Your task to perform on an android device: allow cookies in the chrome app Image 0: 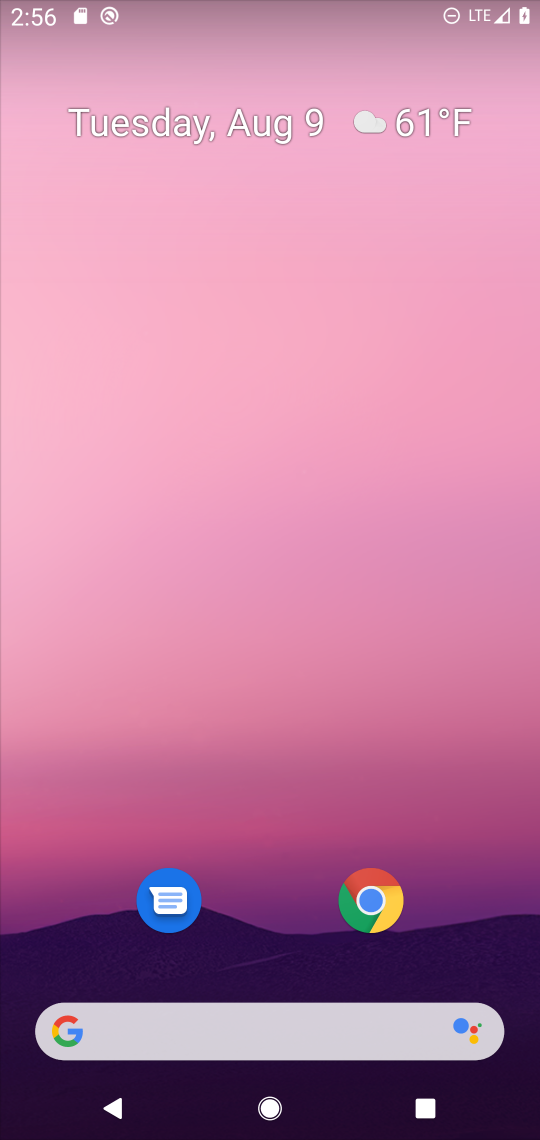
Step 0: press home button
Your task to perform on an android device: allow cookies in the chrome app Image 1: 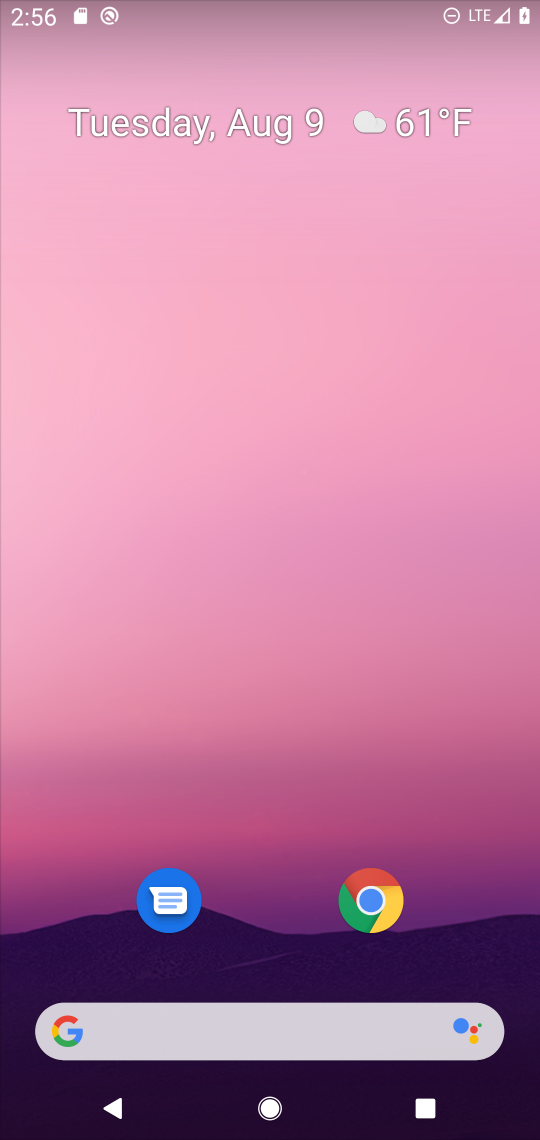
Step 1: drag from (450, 836) to (488, 115)
Your task to perform on an android device: allow cookies in the chrome app Image 2: 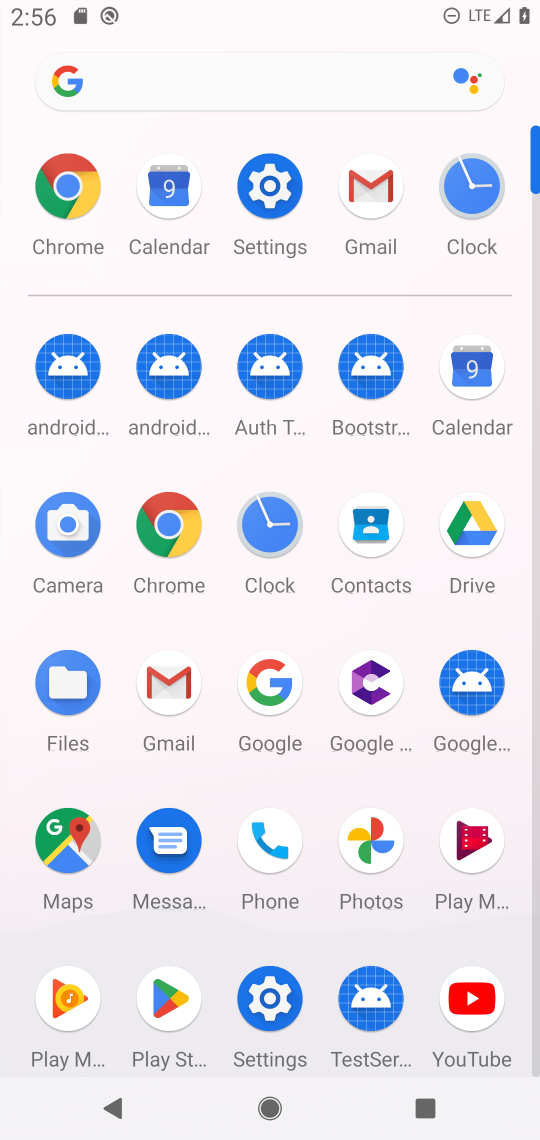
Step 2: click (160, 535)
Your task to perform on an android device: allow cookies in the chrome app Image 3: 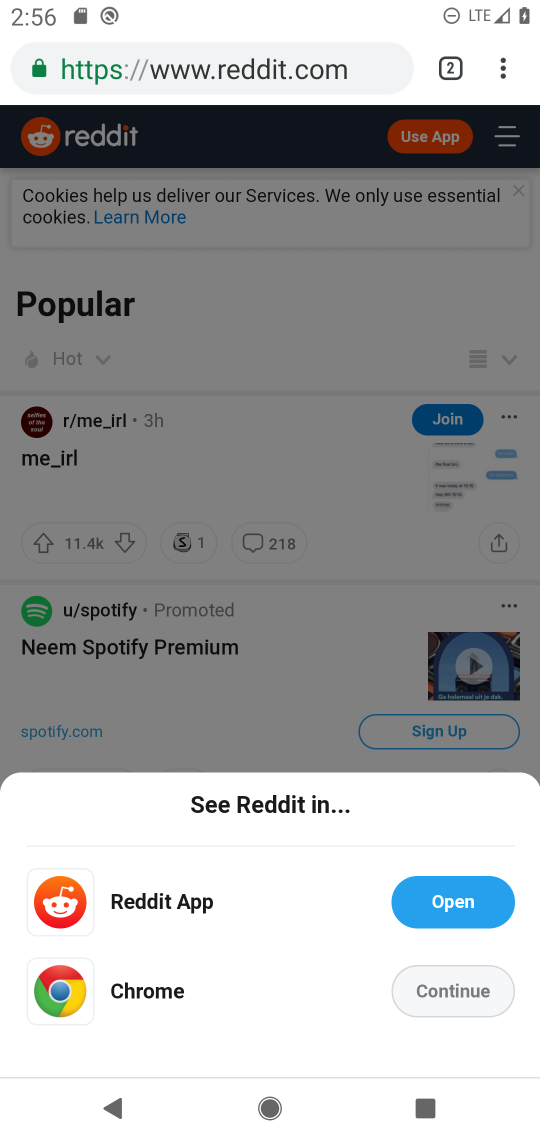
Step 3: click (499, 70)
Your task to perform on an android device: allow cookies in the chrome app Image 4: 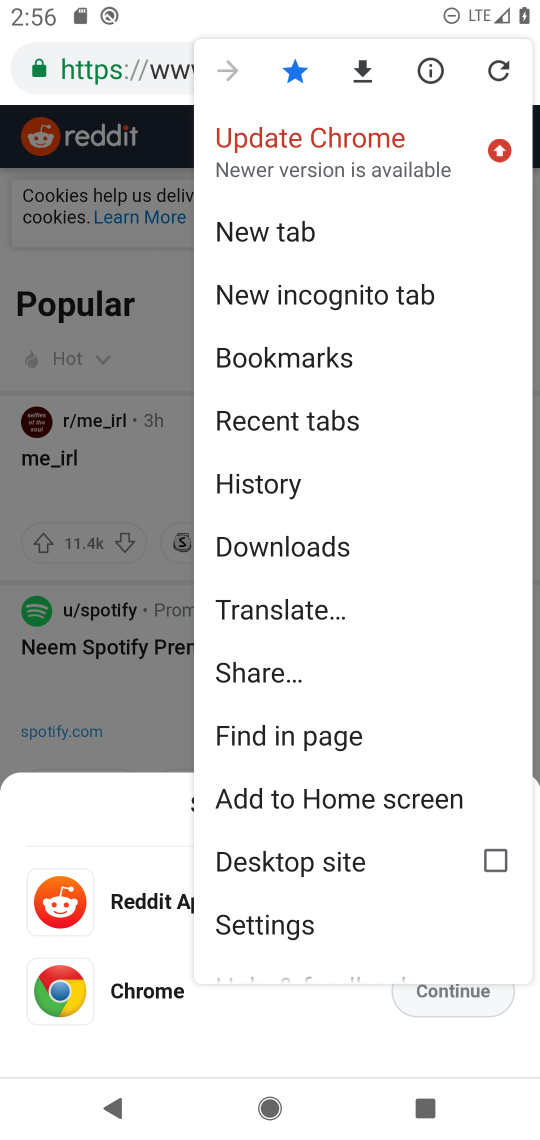
Step 4: drag from (443, 656) to (457, 526)
Your task to perform on an android device: allow cookies in the chrome app Image 5: 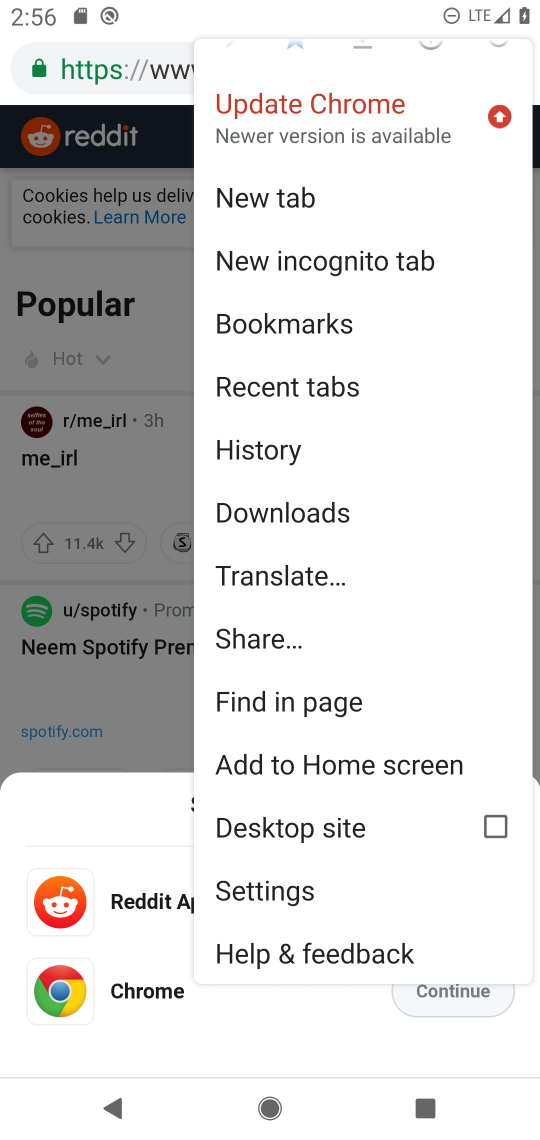
Step 5: drag from (420, 875) to (443, 606)
Your task to perform on an android device: allow cookies in the chrome app Image 6: 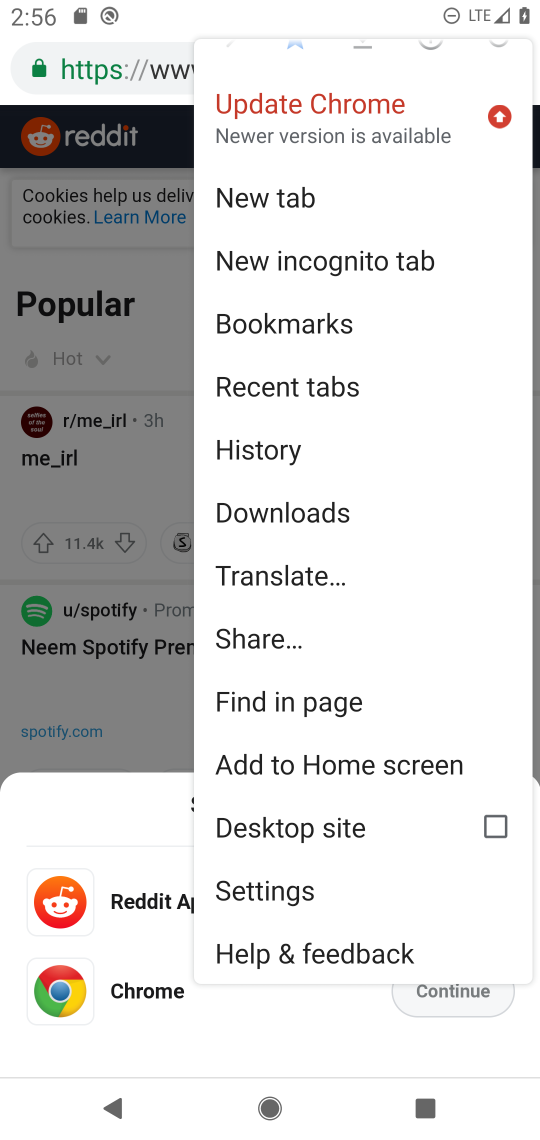
Step 6: click (401, 888)
Your task to perform on an android device: allow cookies in the chrome app Image 7: 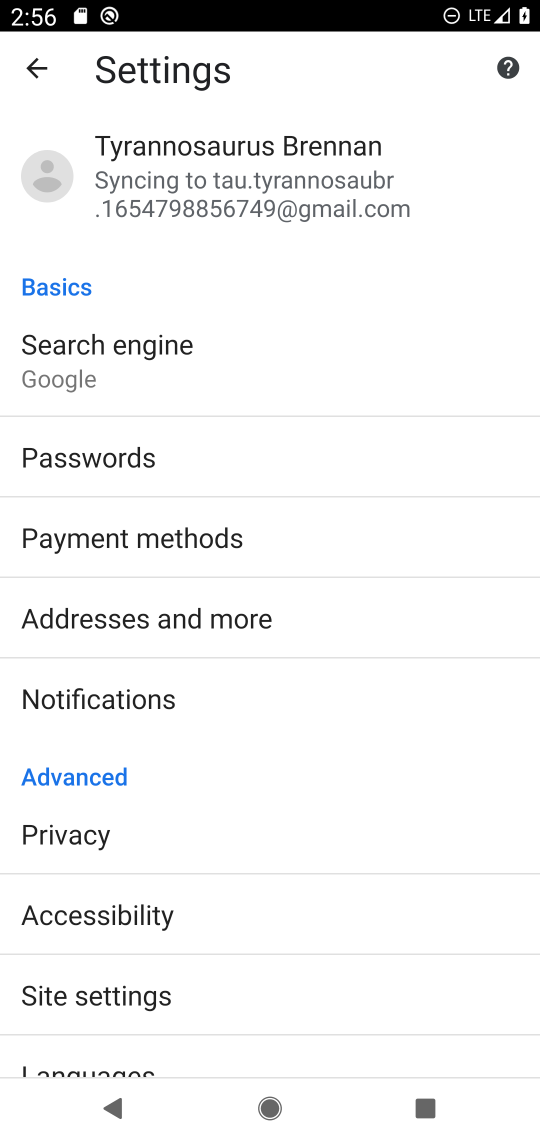
Step 7: click (241, 991)
Your task to perform on an android device: allow cookies in the chrome app Image 8: 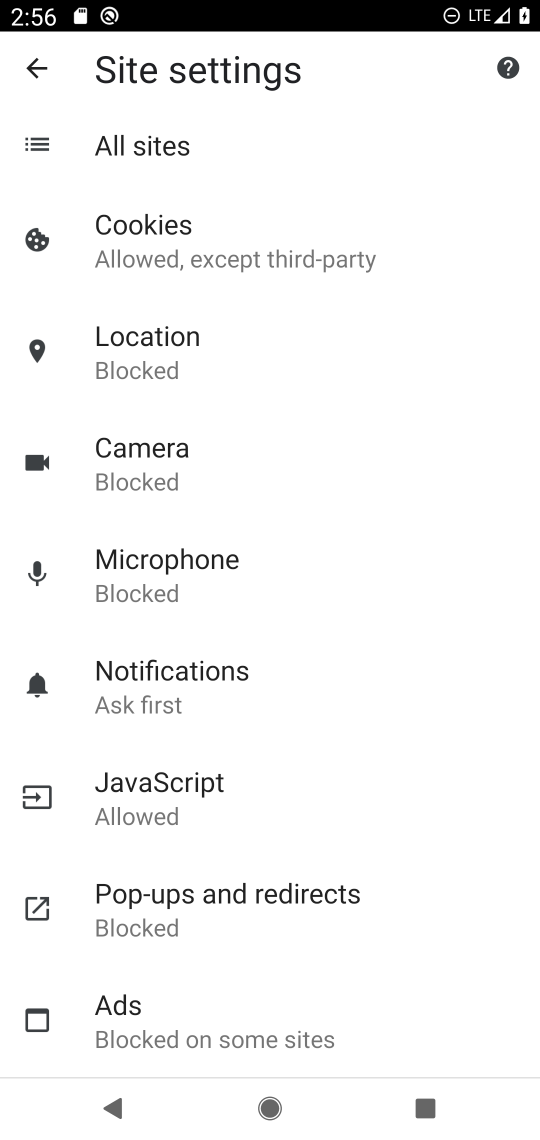
Step 8: click (335, 243)
Your task to perform on an android device: allow cookies in the chrome app Image 9: 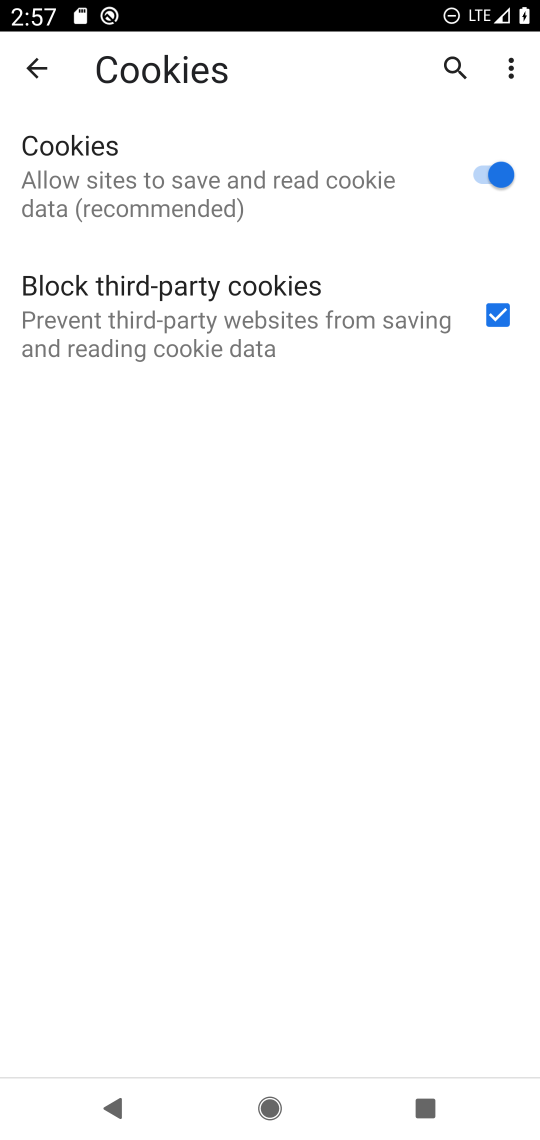
Step 9: task complete